Your task to perform on an android device: Is it going to rain this weekend? Image 0: 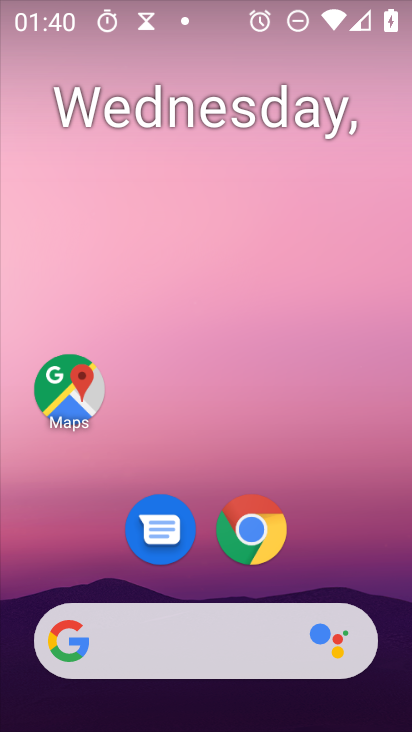
Step 0: drag from (256, 639) to (275, 8)
Your task to perform on an android device: Is it going to rain this weekend? Image 1: 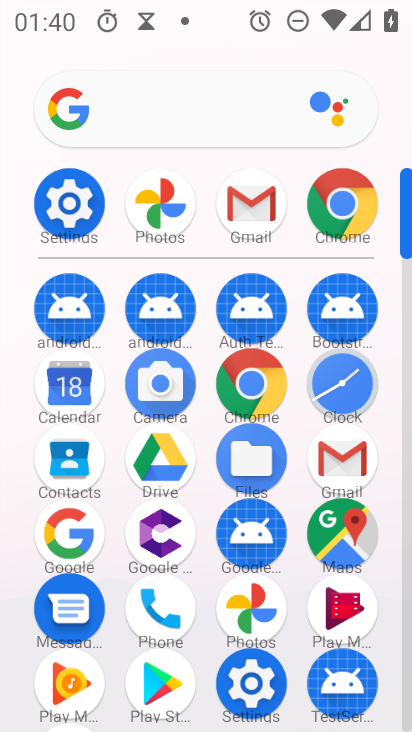
Step 1: press home button
Your task to perform on an android device: Is it going to rain this weekend? Image 2: 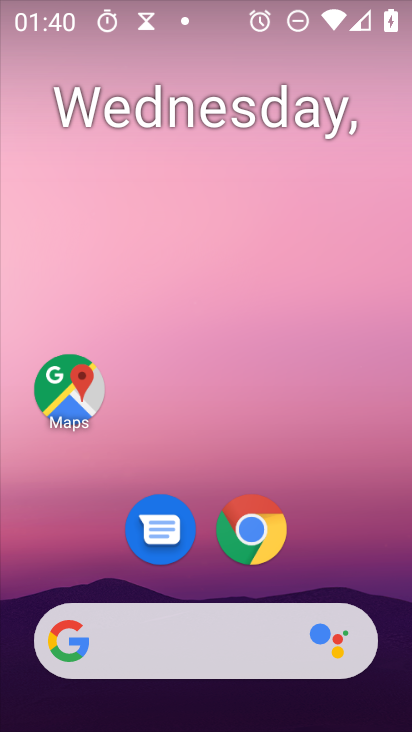
Step 2: drag from (45, 327) to (391, 340)
Your task to perform on an android device: Is it going to rain this weekend? Image 3: 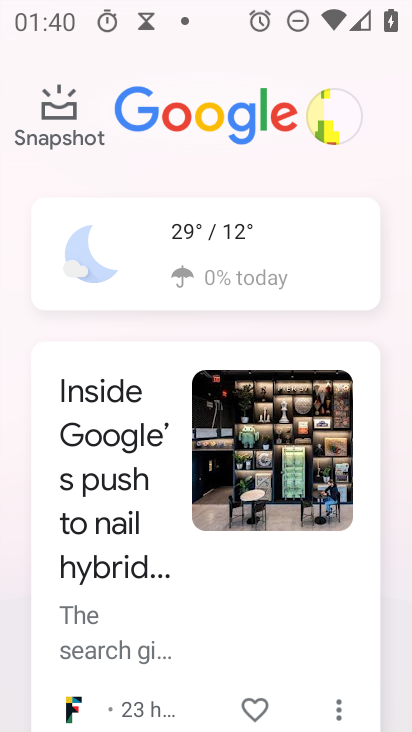
Step 3: click (149, 236)
Your task to perform on an android device: Is it going to rain this weekend? Image 4: 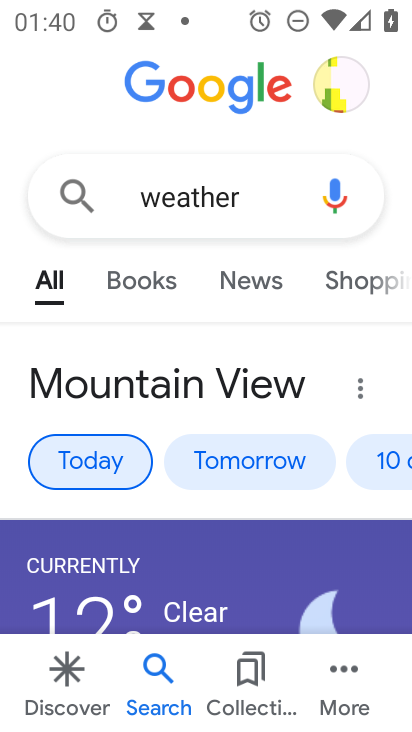
Step 4: click (383, 462)
Your task to perform on an android device: Is it going to rain this weekend? Image 5: 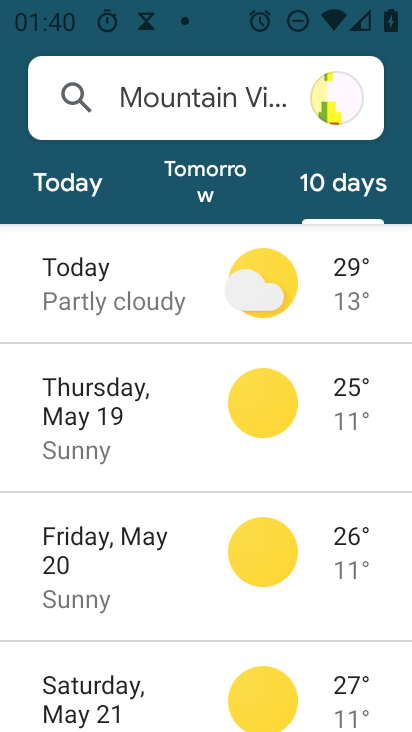
Step 5: task complete